Your task to perform on an android device: Open Google Chrome and open the bookmarks view Image 0: 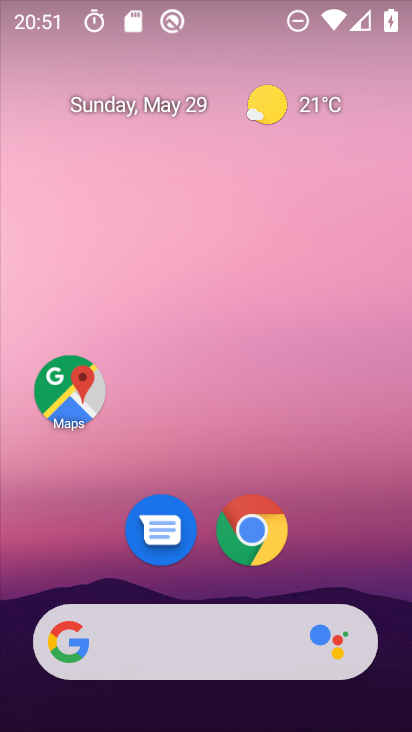
Step 0: drag from (255, 679) to (375, 103)
Your task to perform on an android device: Open Google Chrome and open the bookmarks view Image 1: 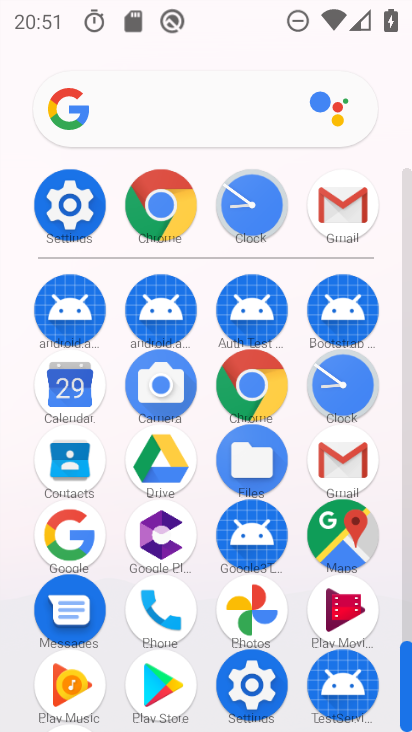
Step 1: click (160, 233)
Your task to perform on an android device: Open Google Chrome and open the bookmarks view Image 2: 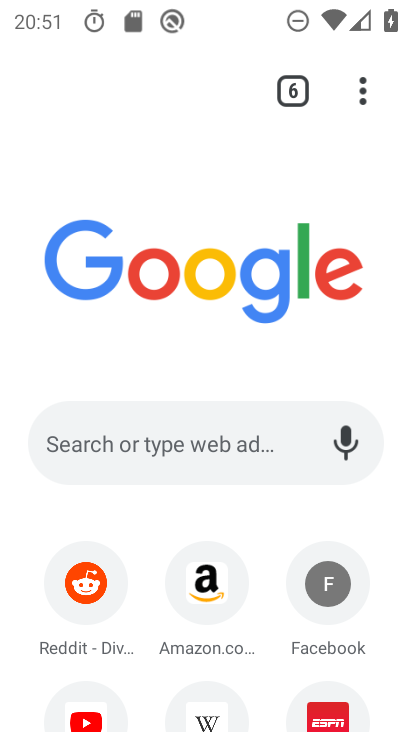
Step 2: click (356, 105)
Your task to perform on an android device: Open Google Chrome and open the bookmarks view Image 3: 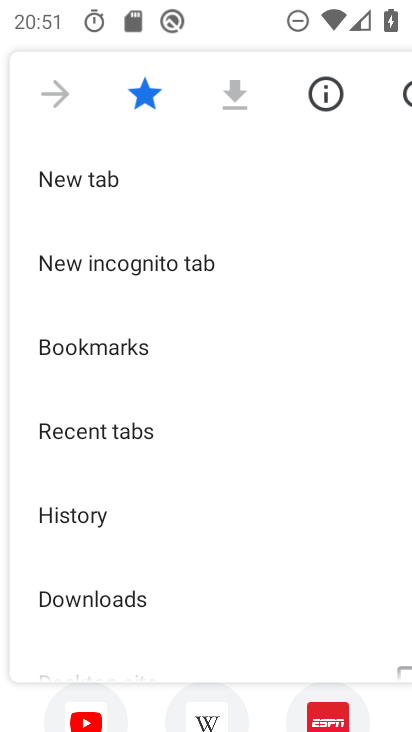
Step 3: click (120, 354)
Your task to perform on an android device: Open Google Chrome and open the bookmarks view Image 4: 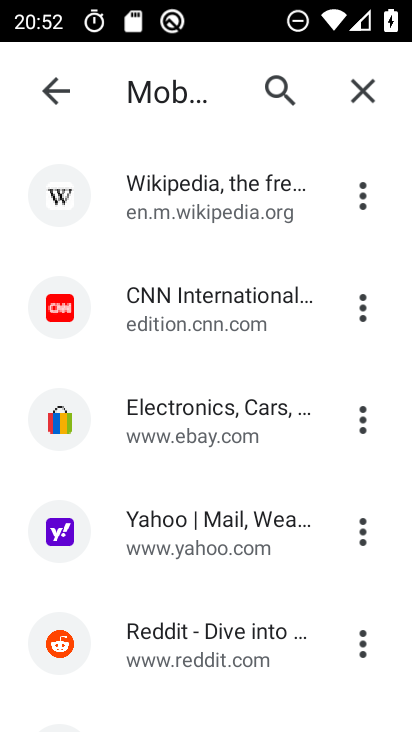
Step 4: task complete